Your task to perform on an android device: open chrome privacy settings Image 0: 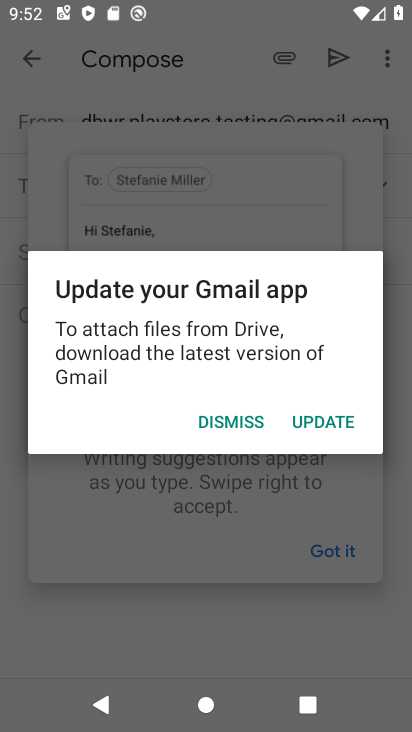
Step 0: press home button
Your task to perform on an android device: open chrome privacy settings Image 1: 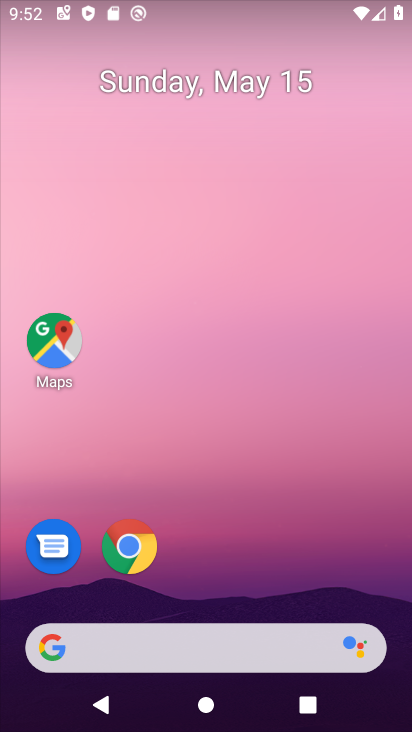
Step 1: drag from (275, 569) to (276, 104)
Your task to perform on an android device: open chrome privacy settings Image 2: 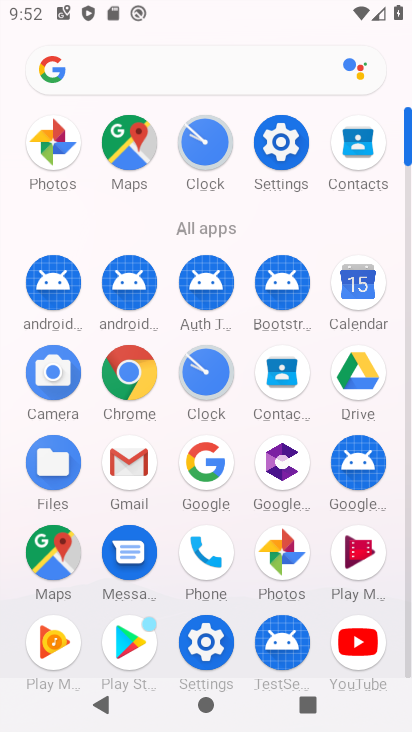
Step 2: click (292, 127)
Your task to perform on an android device: open chrome privacy settings Image 3: 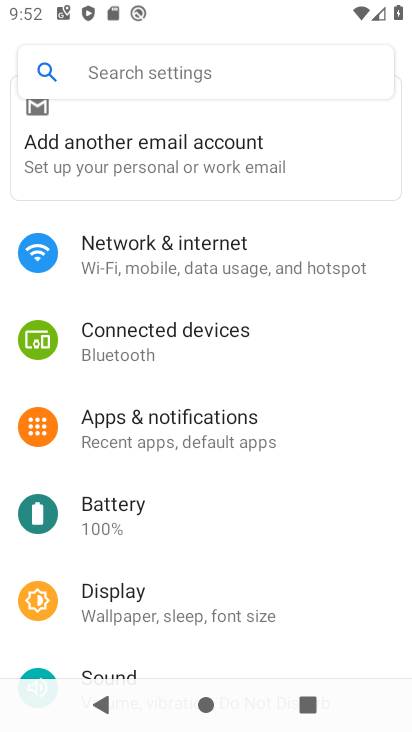
Step 3: drag from (217, 600) to (267, 221)
Your task to perform on an android device: open chrome privacy settings Image 4: 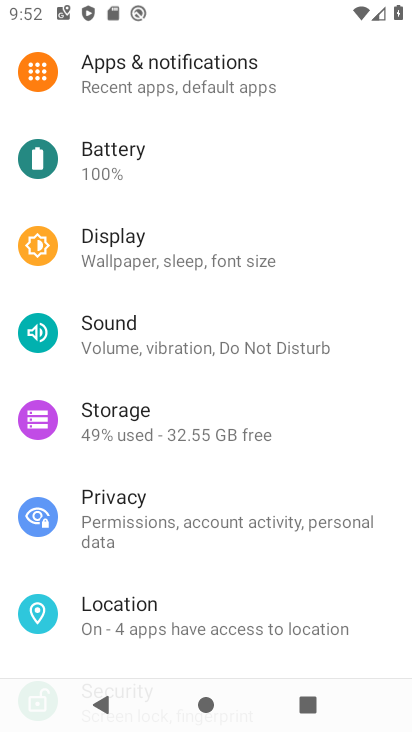
Step 4: click (174, 531)
Your task to perform on an android device: open chrome privacy settings Image 5: 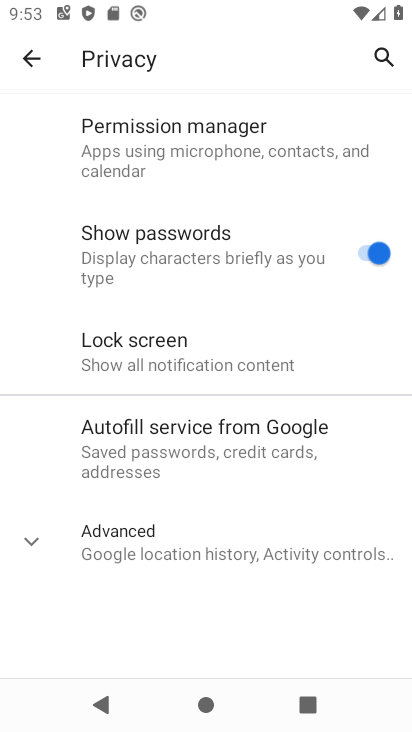
Step 5: task complete